Your task to perform on an android device: Open Google Chrome Image 0: 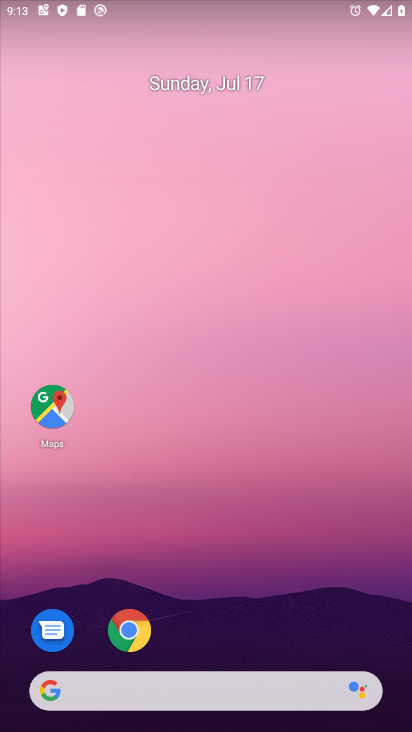
Step 0: drag from (337, 628) to (380, 110)
Your task to perform on an android device: Open Google Chrome Image 1: 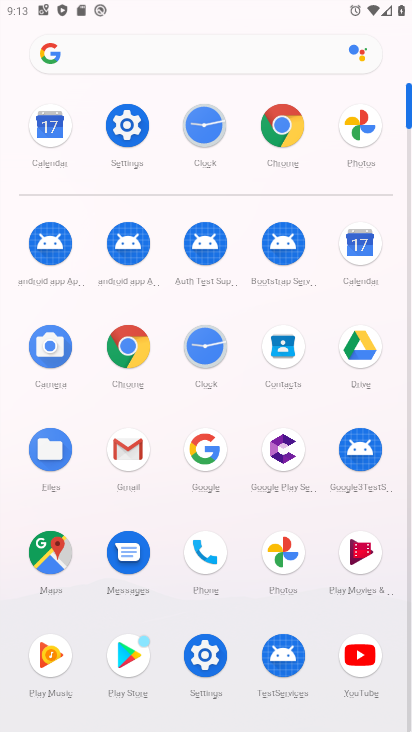
Step 1: click (136, 348)
Your task to perform on an android device: Open Google Chrome Image 2: 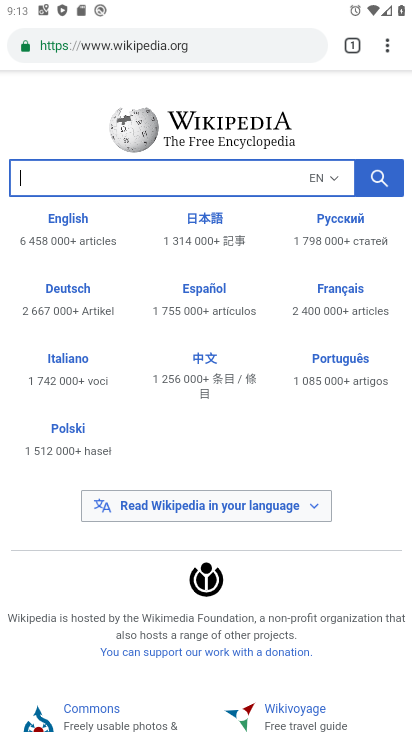
Step 2: task complete